Your task to perform on an android device: Open internet settings Image 0: 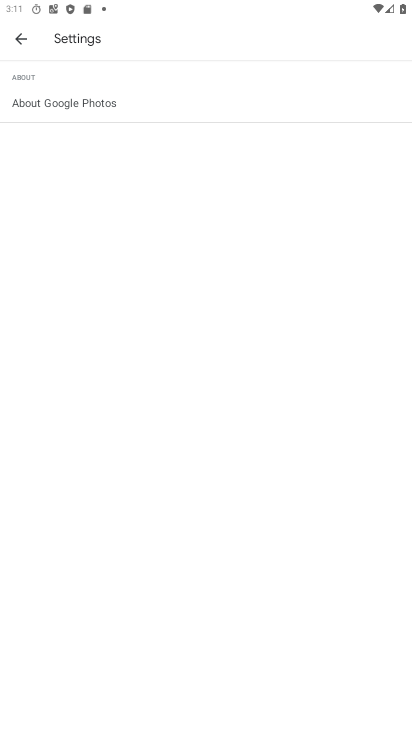
Step 0: press home button
Your task to perform on an android device: Open internet settings Image 1: 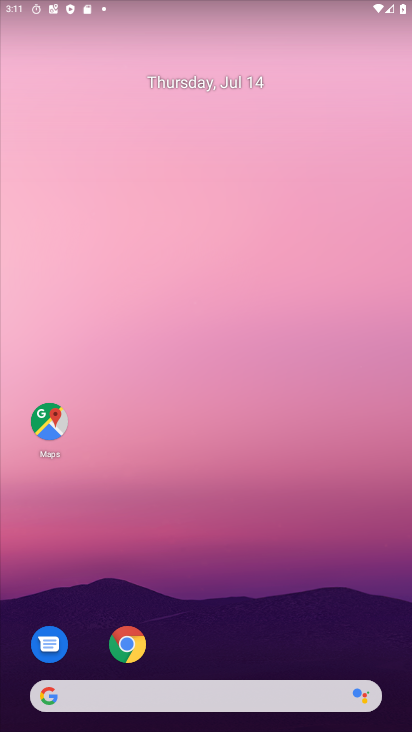
Step 1: drag from (29, 691) to (244, 239)
Your task to perform on an android device: Open internet settings Image 2: 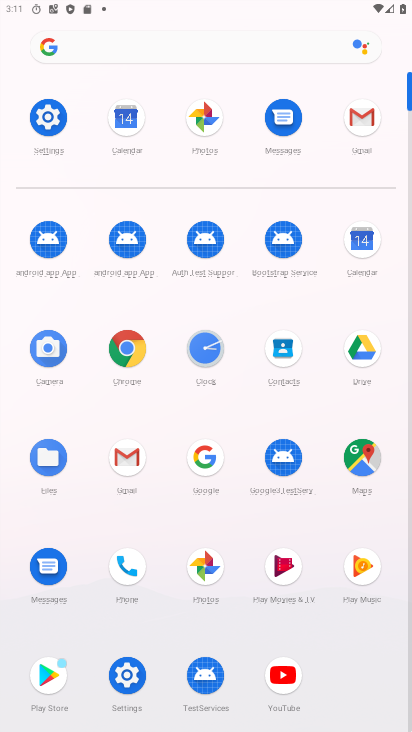
Step 2: click (129, 674)
Your task to perform on an android device: Open internet settings Image 3: 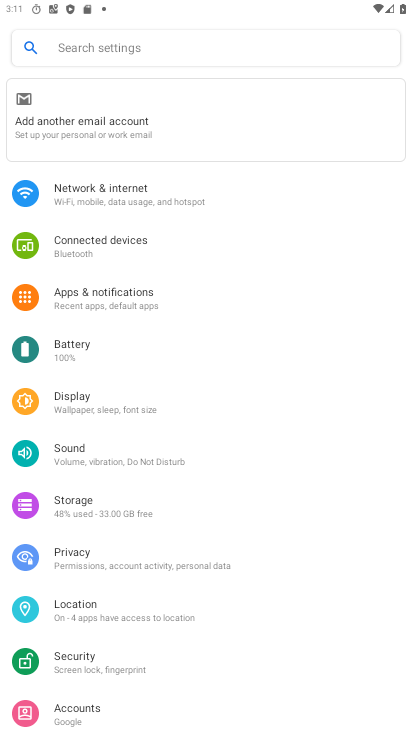
Step 3: click (121, 199)
Your task to perform on an android device: Open internet settings Image 4: 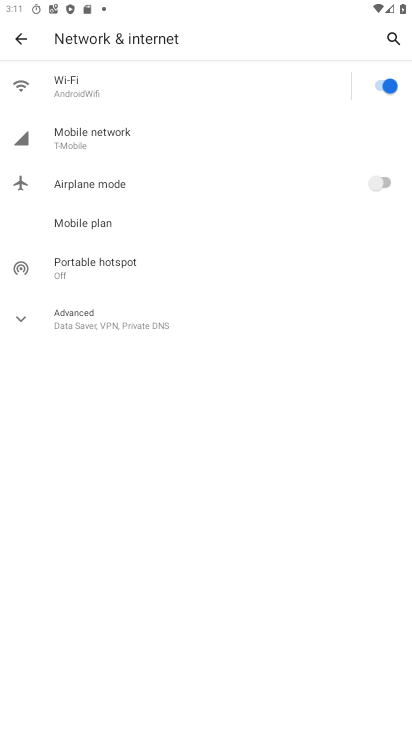
Step 4: task complete